Your task to perform on an android device: Go to location settings Image 0: 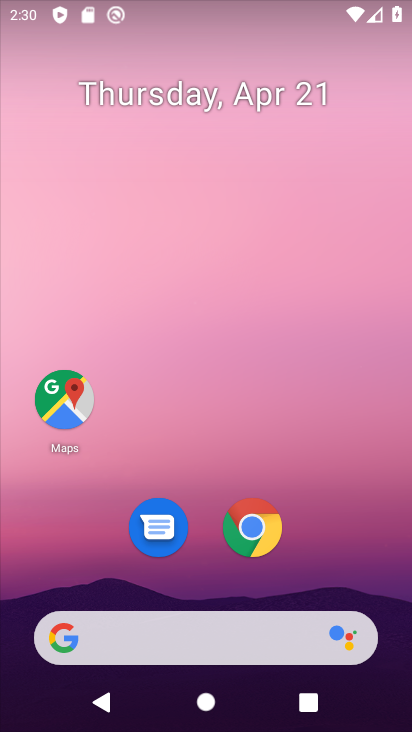
Step 0: drag from (199, 605) to (284, 139)
Your task to perform on an android device: Go to location settings Image 1: 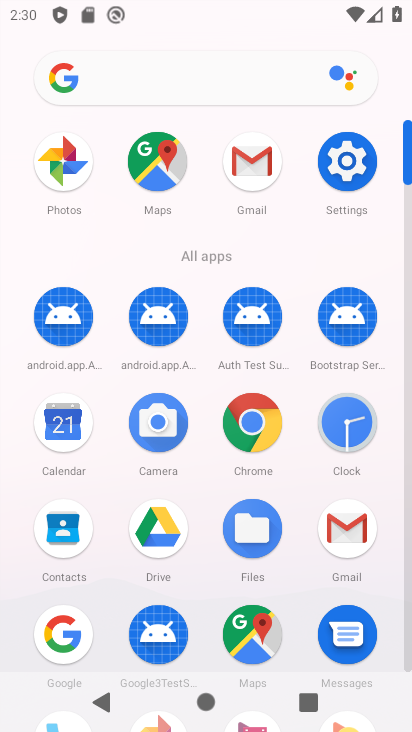
Step 1: click (340, 162)
Your task to perform on an android device: Go to location settings Image 2: 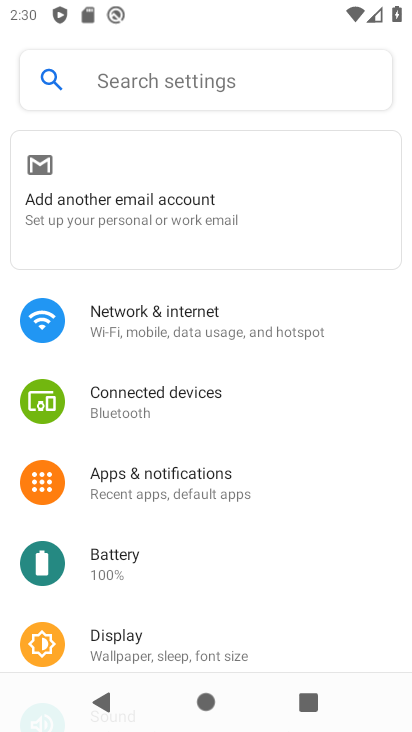
Step 2: drag from (187, 606) to (240, 184)
Your task to perform on an android device: Go to location settings Image 3: 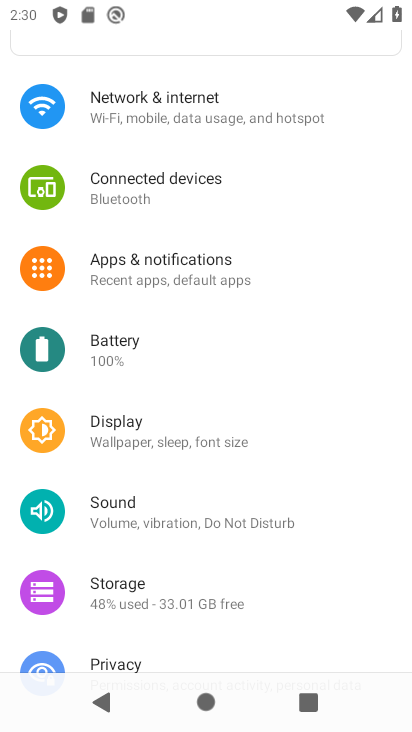
Step 3: drag from (189, 649) to (195, 271)
Your task to perform on an android device: Go to location settings Image 4: 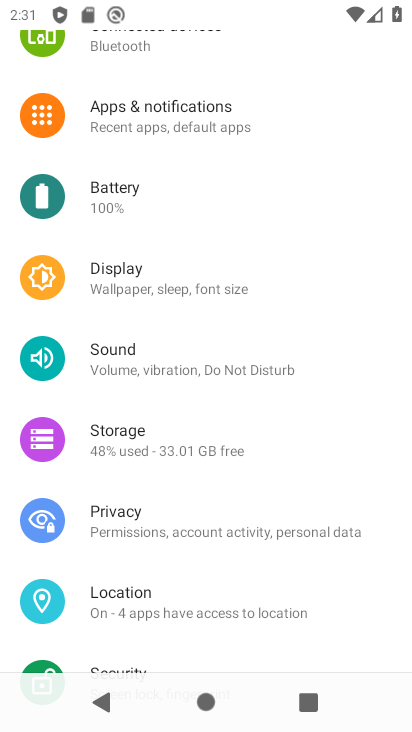
Step 4: click (140, 605)
Your task to perform on an android device: Go to location settings Image 5: 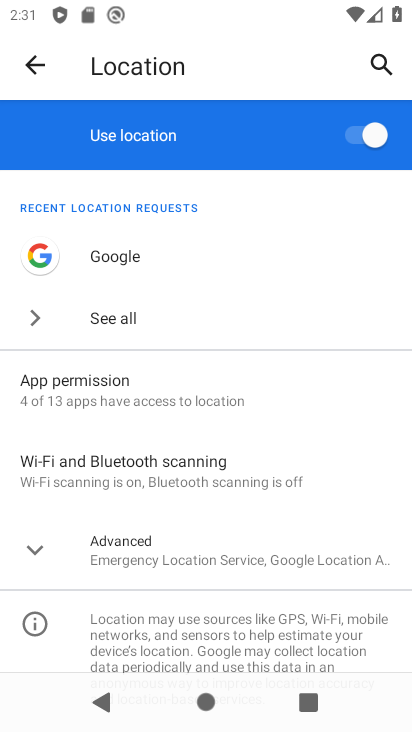
Step 5: click (129, 541)
Your task to perform on an android device: Go to location settings Image 6: 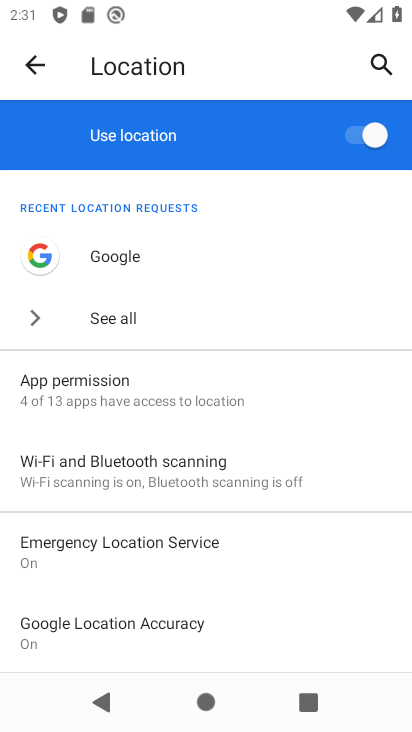
Step 6: drag from (125, 644) to (136, 334)
Your task to perform on an android device: Go to location settings Image 7: 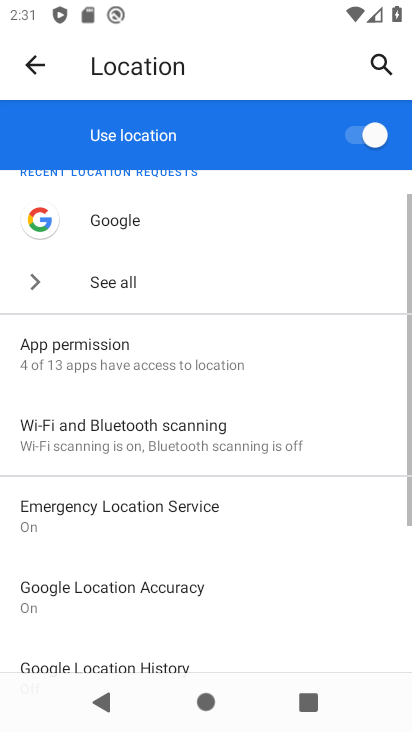
Step 7: click (141, 323)
Your task to perform on an android device: Go to location settings Image 8: 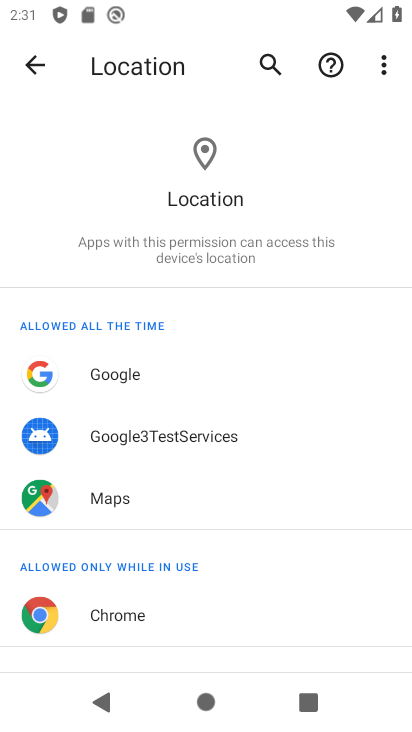
Step 8: task complete